Your task to perform on an android device: choose inbox layout in the gmail app Image 0: 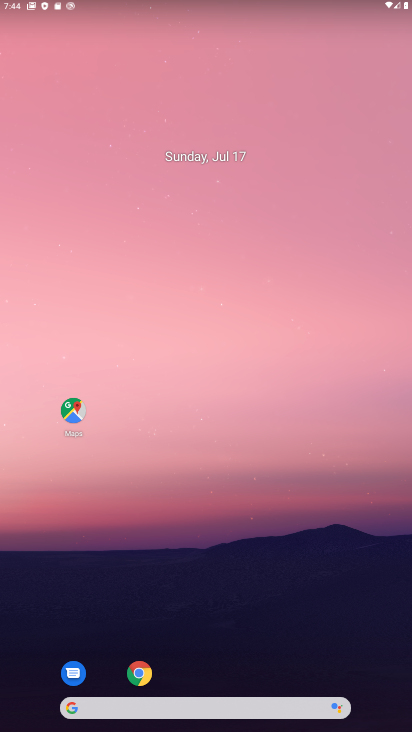
Step 0: drag from (304, 646) to (336, 8)
Your task to perform on an android device: choose inbox layout in the gmail app Image 1: 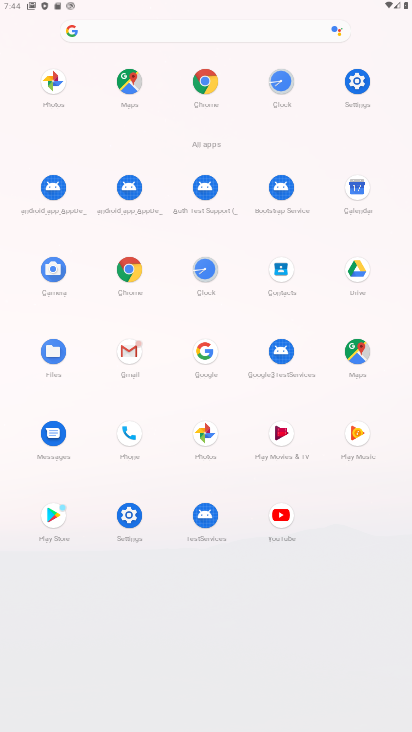
Step 1: click (132, 349)
Your task to perform on an android device: choose inbox layout in the gmail app Image 2: 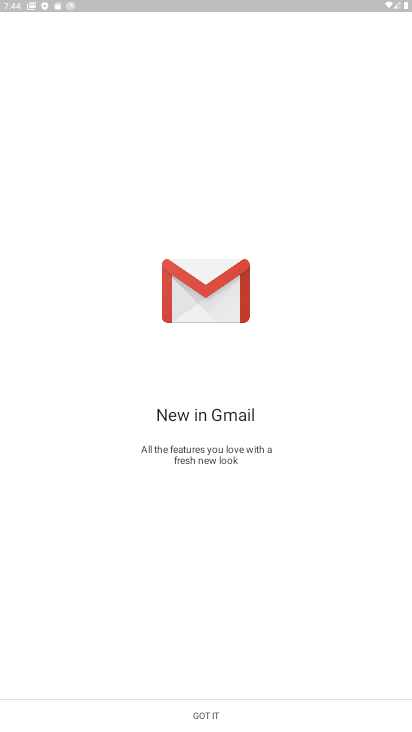
Step 2: click (239, 715)
Your task to perform on an android device: choose inbox layout in the gmail app Image 3: 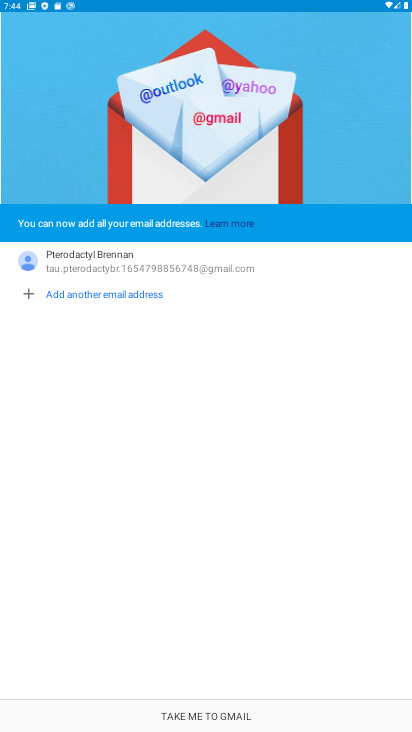
Step 3: click (239, 715)
Your task to perform on an android device: choose inbox layout in the gmail app Image 4: 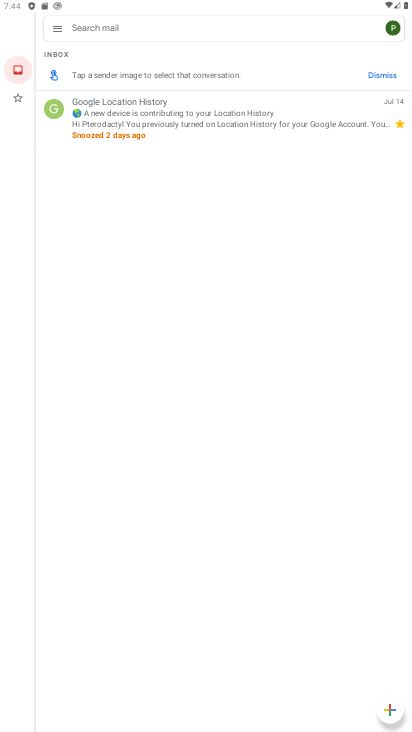
Step 4: click (58, 31)
Your task to perform on an android device: choose inbox layout in the gmail app Image 5: 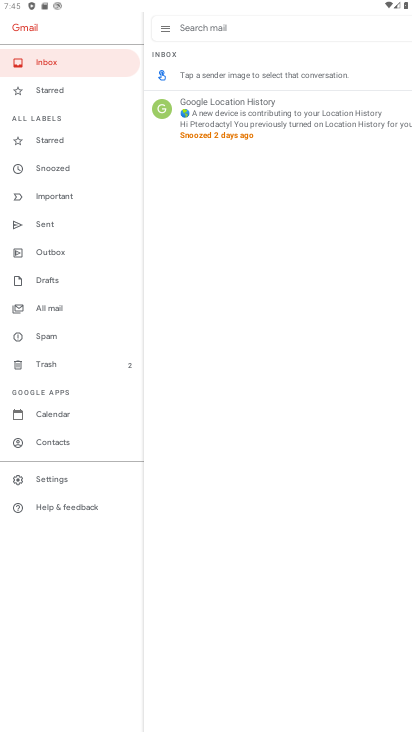
Step 5: click (76, 484)
Your task to perform on an android device: choose inbox layout in the gmail app Image 6: 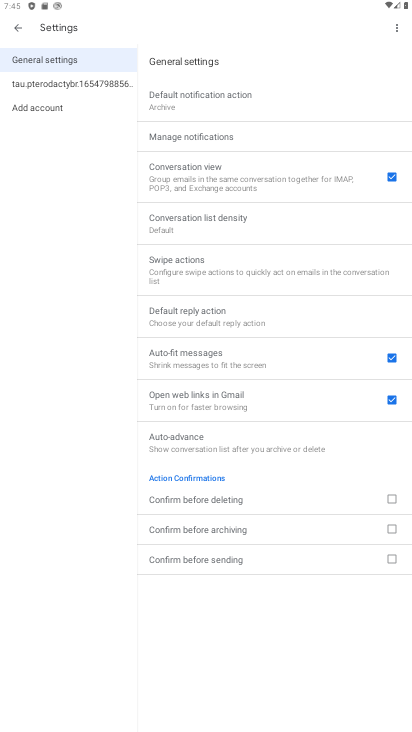
Step 6: click (112, 81)
Your task to perform on an android device: choose inbox layout in the gmail app Image 7: 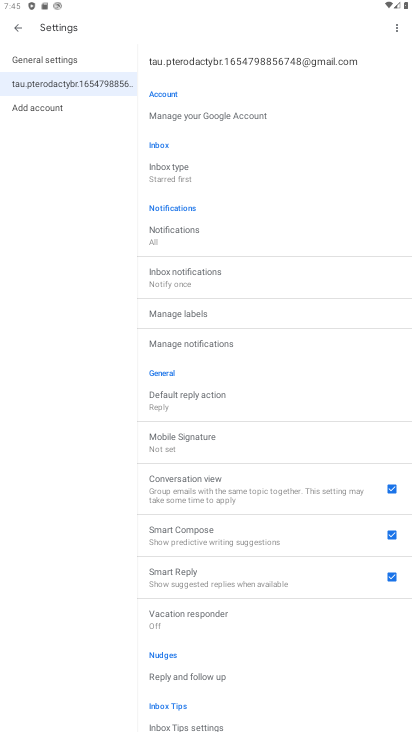
Step 7: click (201, 165)
Your task to perform on an android device: choose inbox layout in the gmail app Image 8: 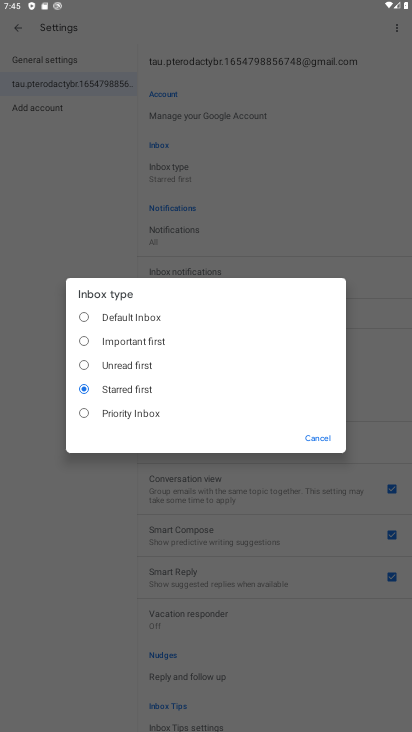
Step 8: click (128, 314)
Your task to perform on an android device: choose inbox layout in the gmail app Image 9: 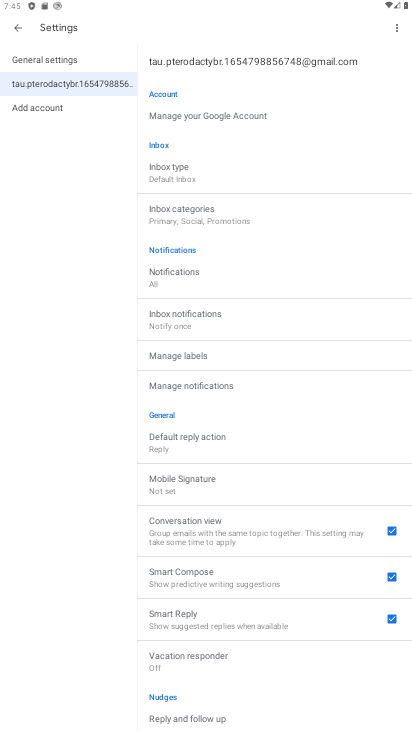
Step 9: task complete